Your task to perform on an android device: Open accessibility settings Image 0: 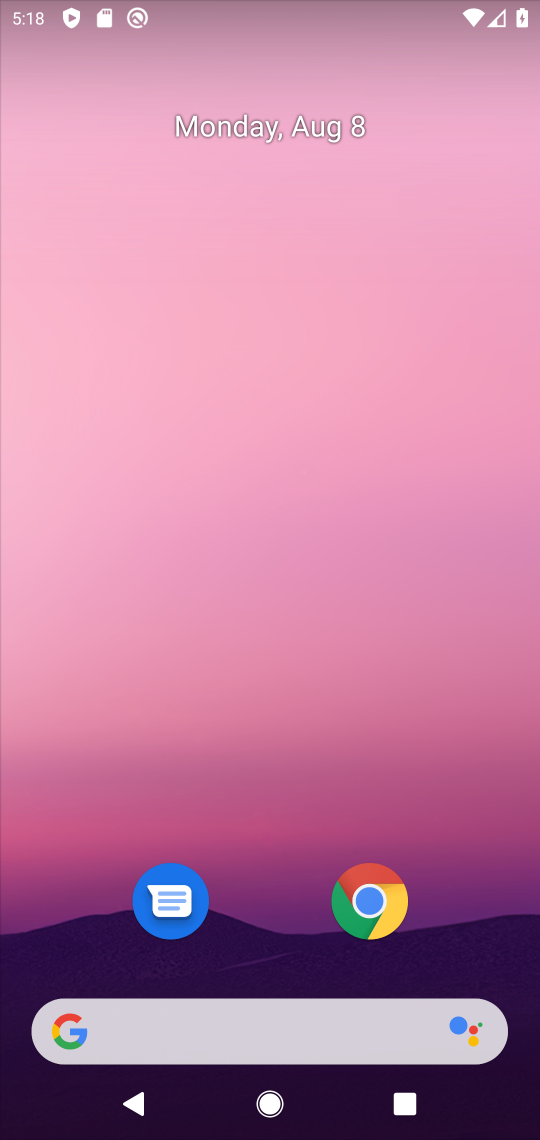
Step 0: drag from (493, 892) to (448, 14)
Your task to perform on an android device: Open accessibility settings Image 1: 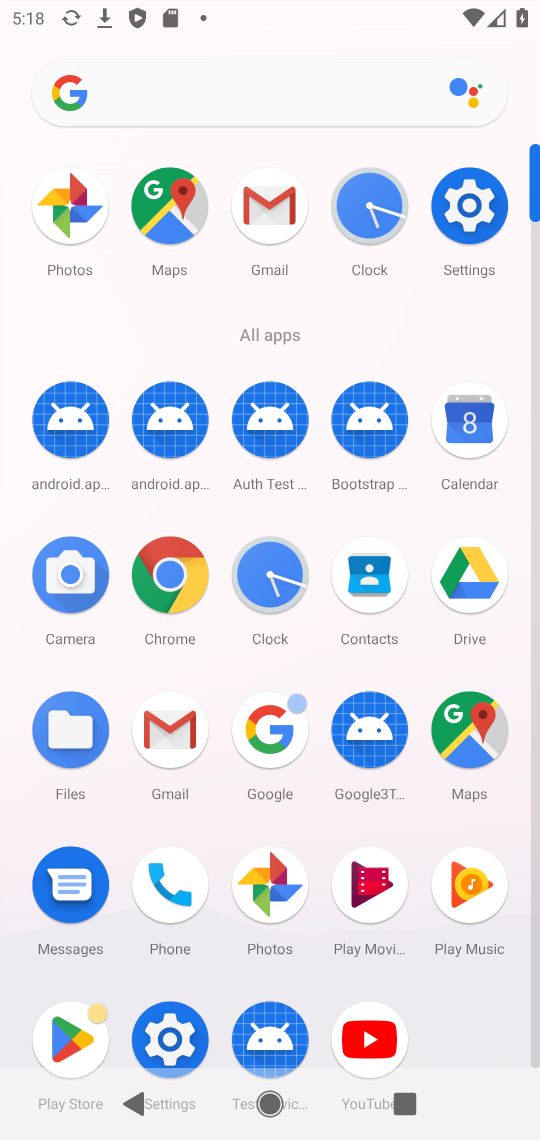
Step 1: click (452, 265)
Your task to perform on an android device: Open accessibility settings Image 2: 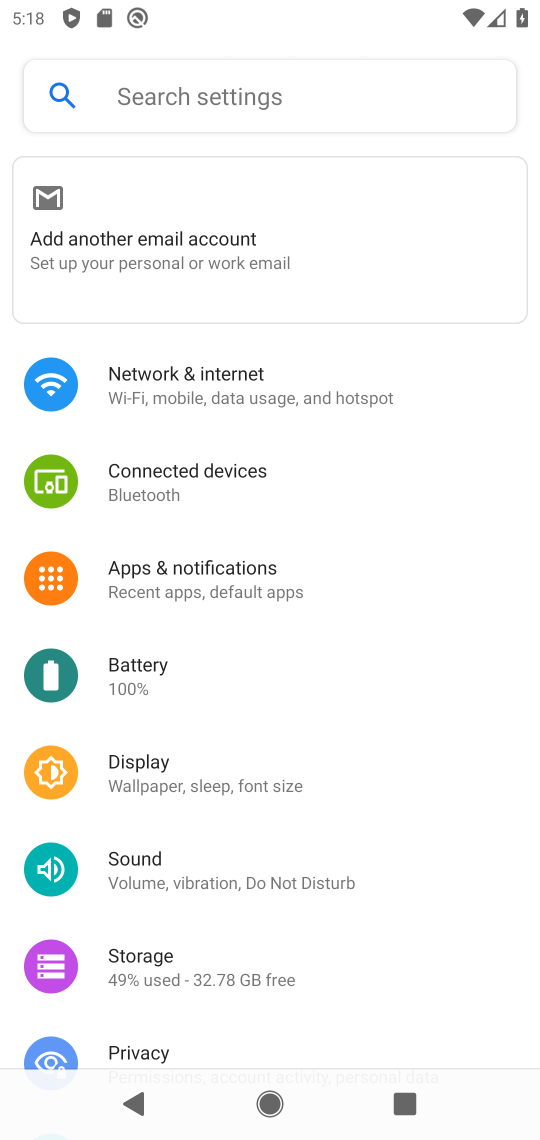
Step 2: drag from (328, 1026) to (422, 93)
Your task to perform on an android device: Open accessibility settings Image 3: 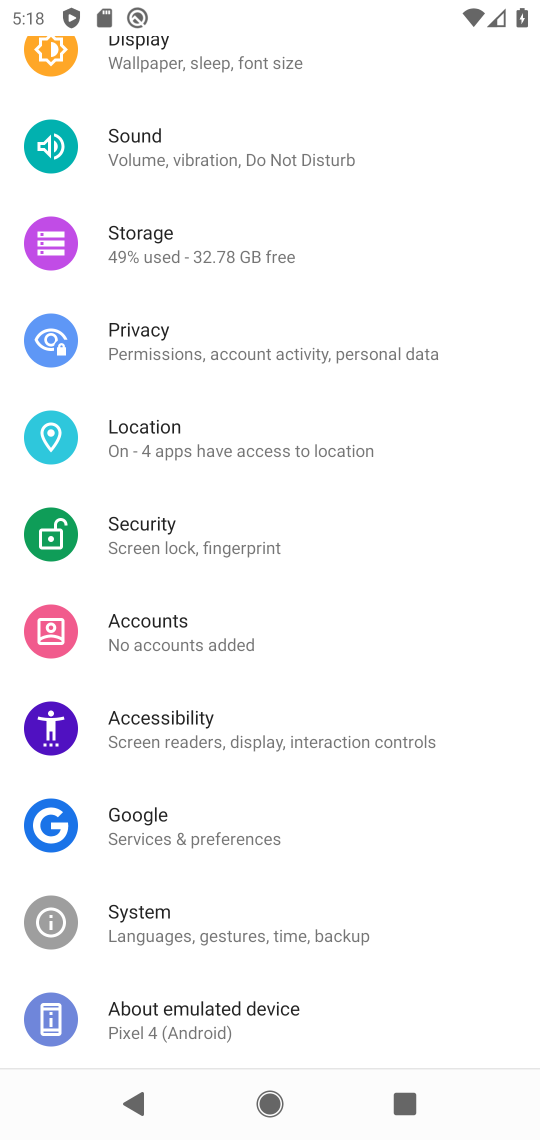
Step 3: click (331, 738)
Your task to perform on an android device: Open accessibility settings Image 4: 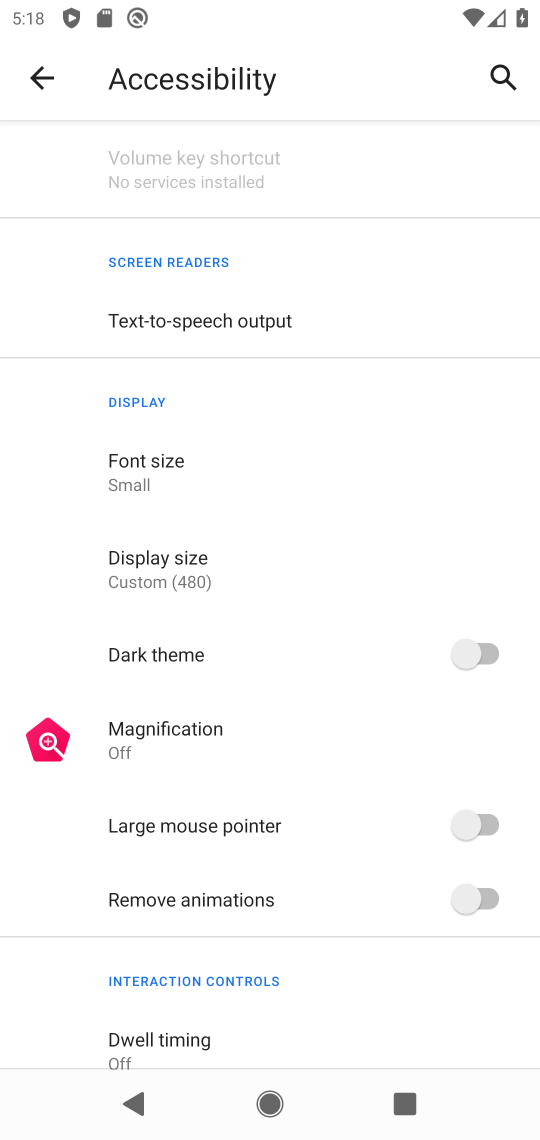
Step 4: task complete